Your task to perform on an android device: Open privacy settings Image 0: 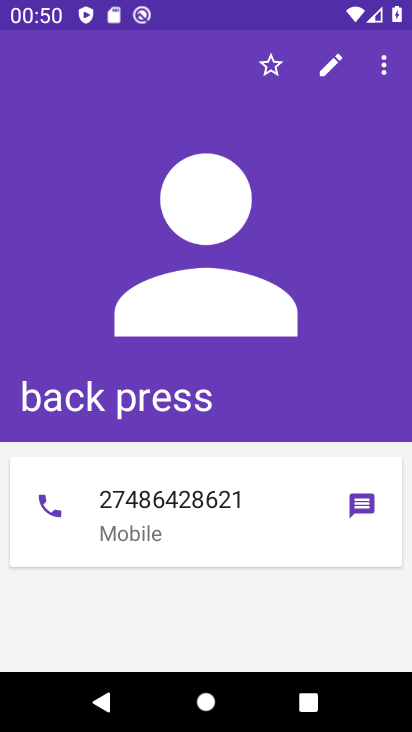
Step 0: press home button
Your task to perform on an android device: Open privacy settings Image 1: 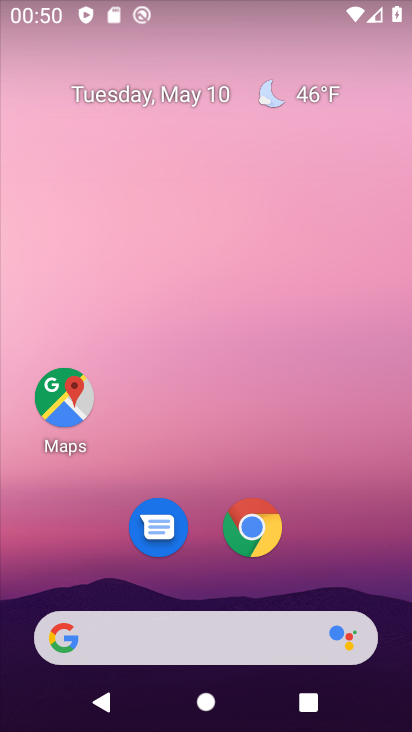
Step 1: click (261, 539)
Your task to perform on an android device: Open privacy settings Image 2: 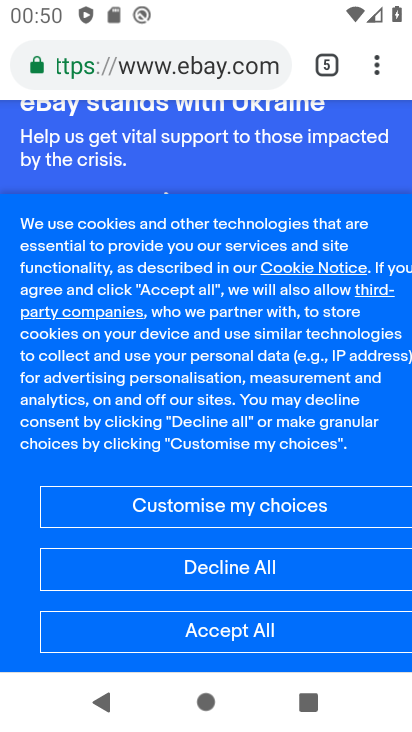
Step 2: drag from (373, 60) to (163, 578)
Your task to perform on an android device: Open privacy settings Image 3: 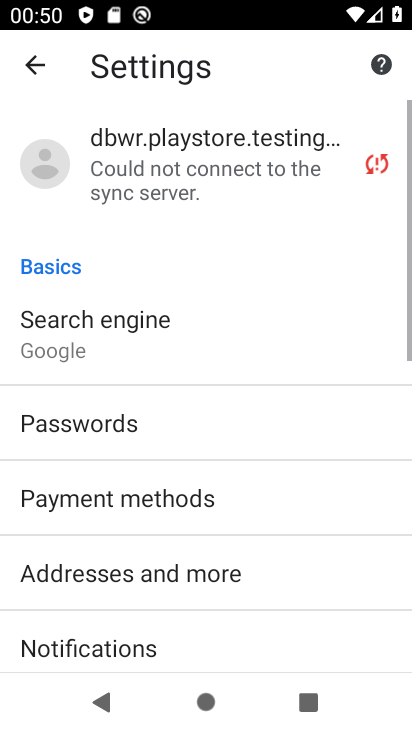
Step 3: drag from (165, 625) to (179, 297)
Your task to perform on an android device: Open privacy settings Image 4: 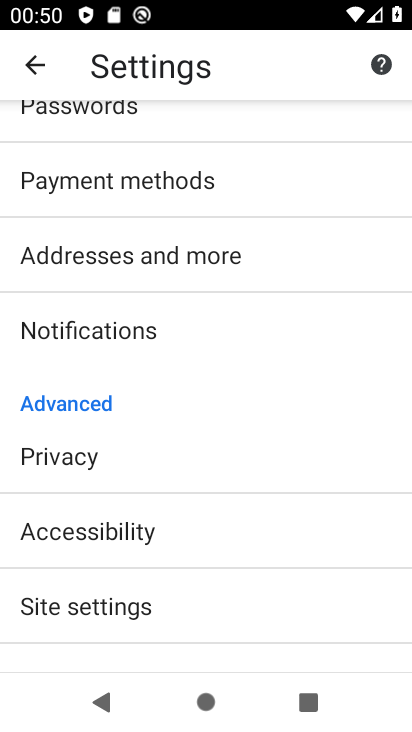
Step 4: click (69, 461)
Your task to perform on an android device: Open privacy settings Image 5: 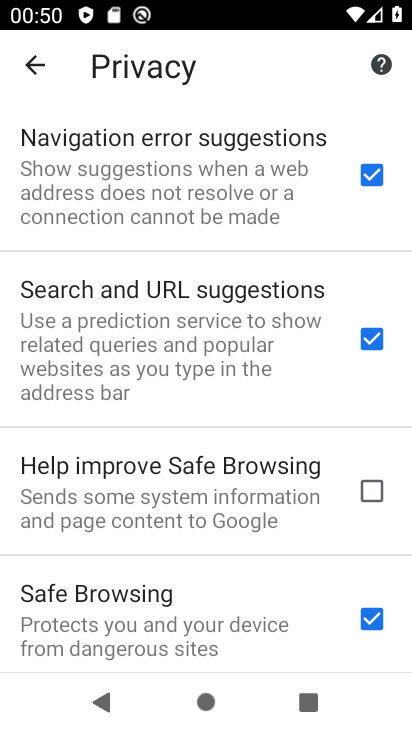
Step 5: task complete